Your task to perform on an android device: find photos in the google photos app Image 0: 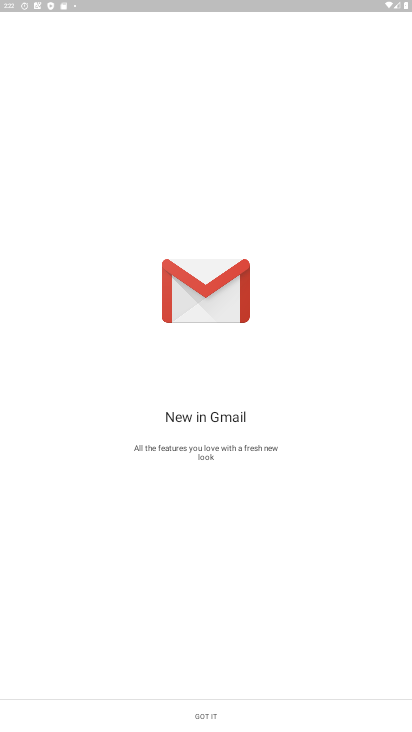
Step 0: press home button
Your task to perform on an android device: find photos in the google photos app Image 1: 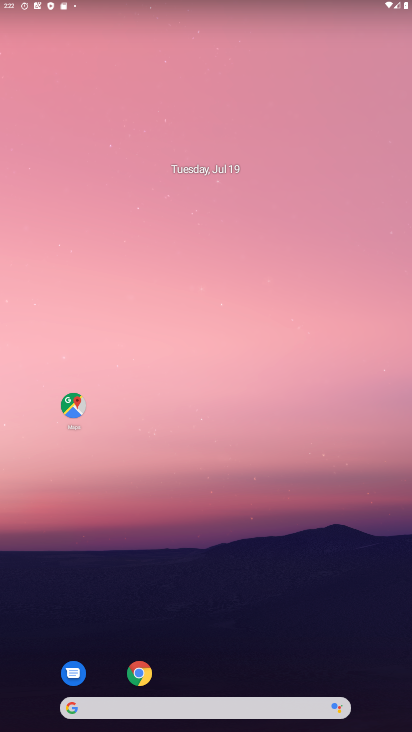
Step 1: drag from (210, 638) to (255, 221)
Your task to perform on an android device: find photos in the google photos app Image 2: 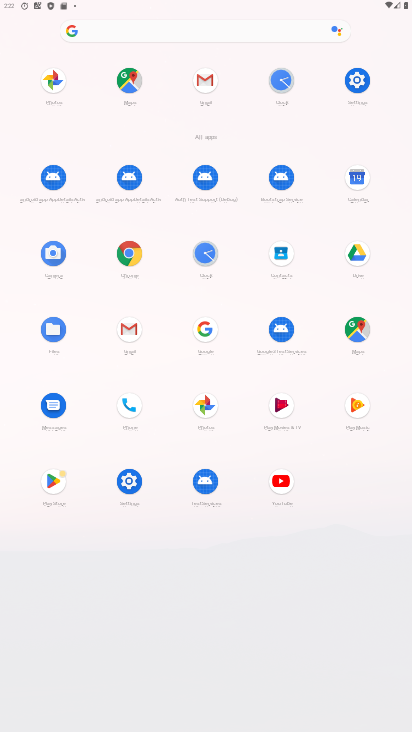
Step 2: click (202, 402)
Your task to perform on an android device: find photos in the google photos app Image 3: 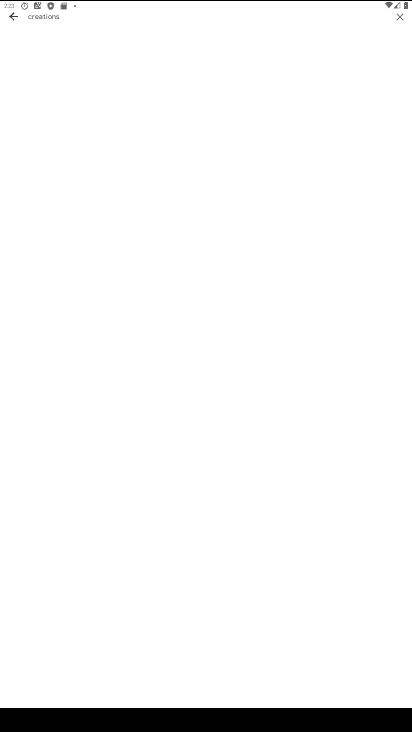
Step 3: click (8, 15)
Your task to perform on an android device: find photos in the google photos app Image 4: 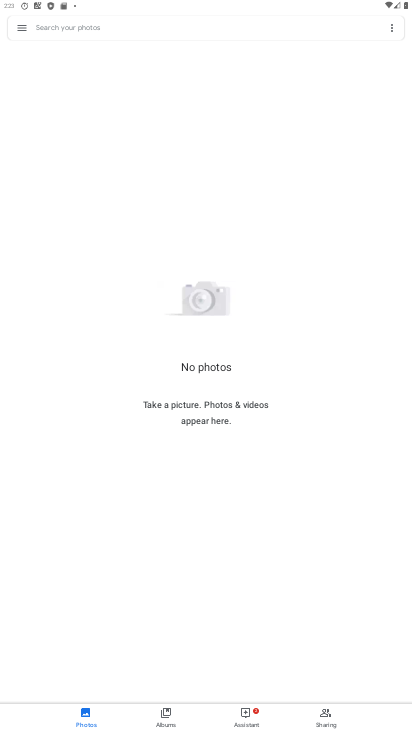
Step 4: task complete